Your task to perform on an android device: Go to Yahoo.com Image 0: 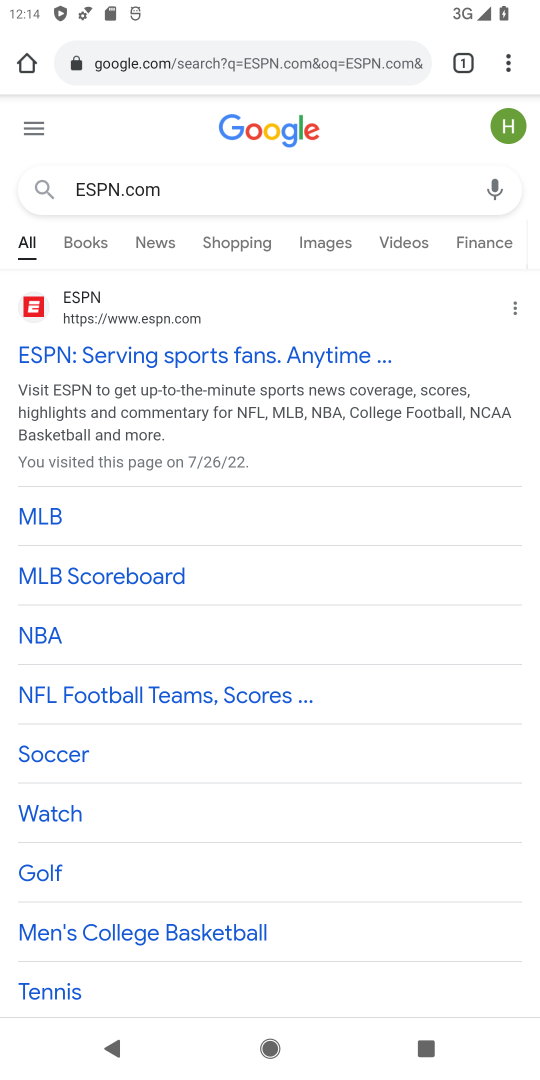
Step 0: drag from (240, 927) to (395, 259)
Your task to perform on an android device: Go to Yahoo.com Image 1: 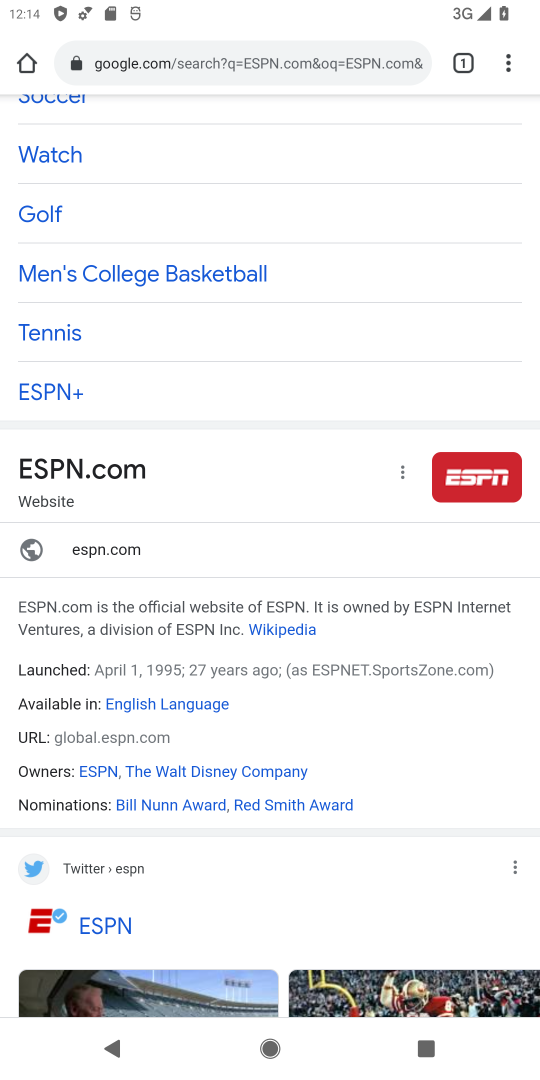
Step 1: press home button
Your task to perform on an android device: Go to Yahoo.com Image 2: 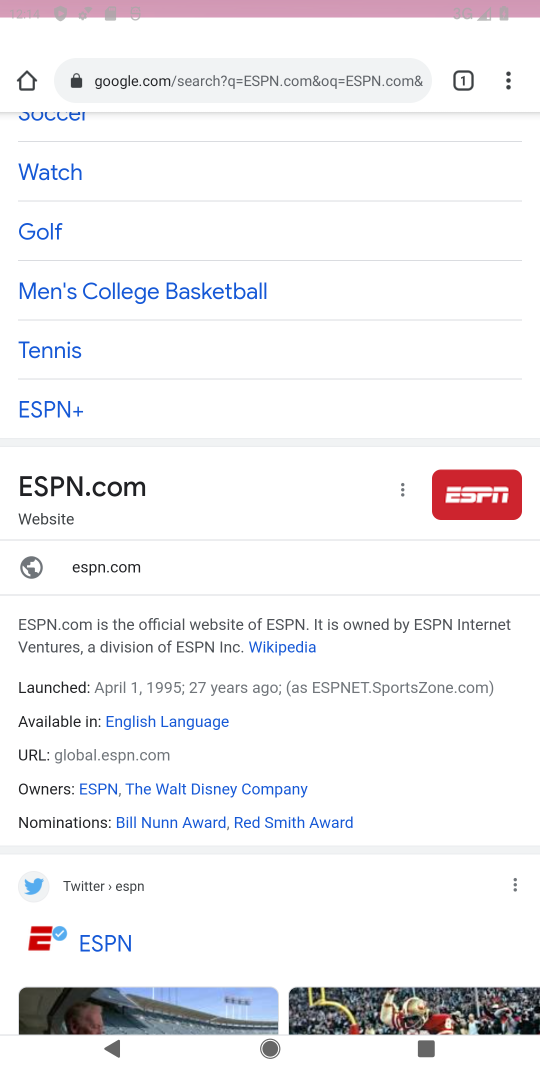
Step 2: drag from (212, 892) to (358, 222)
Your task to perform on an android device: Go to Yahoo.com Image 3: 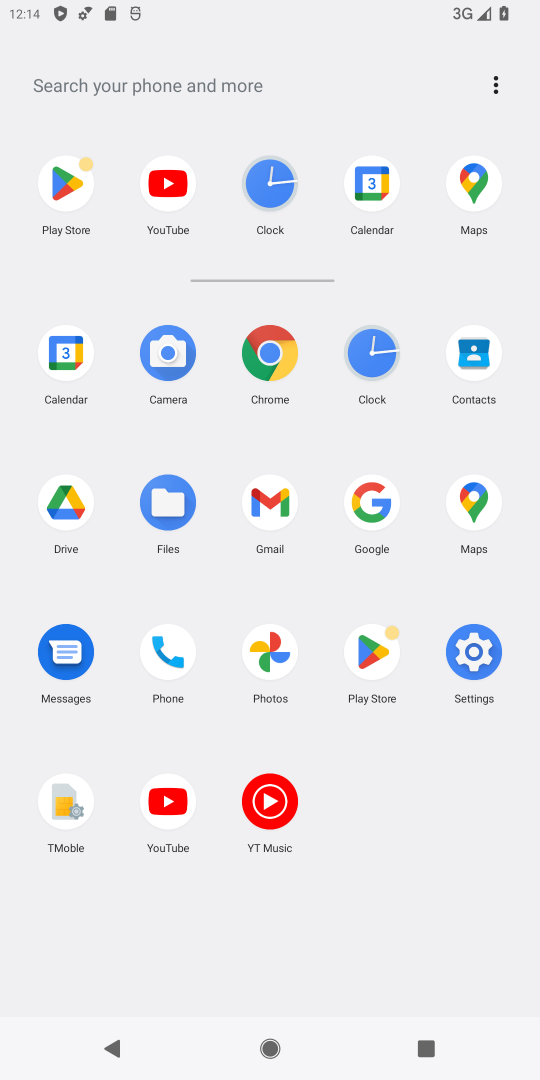
Step 3: click (142, 70)
Your task to perform on an android device: Go to Yahoo.com Image 4: 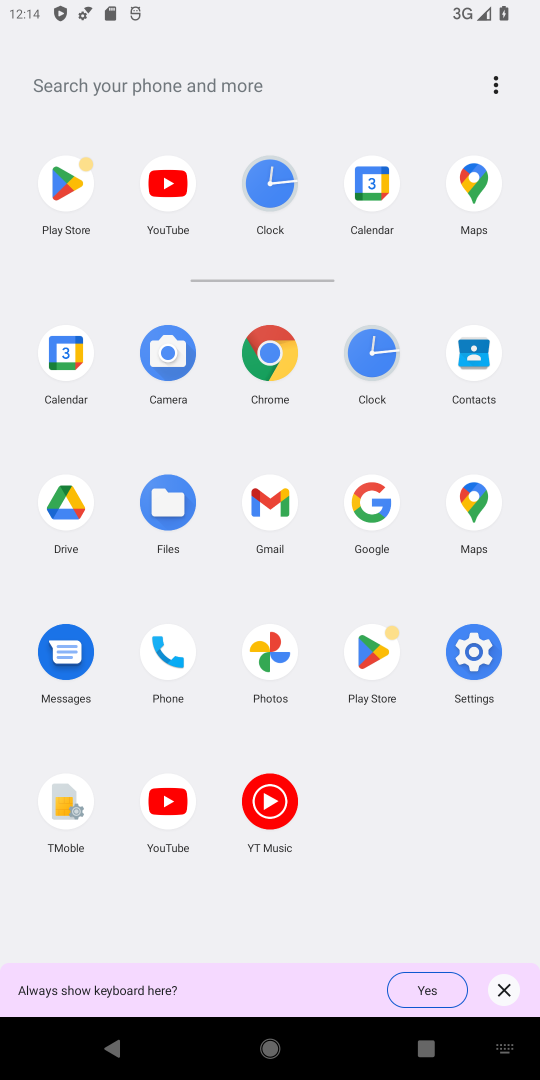
Step 4: type "Yahoo.com"
Your task to perform on an android device: Go to Yahoo.com Image 5: 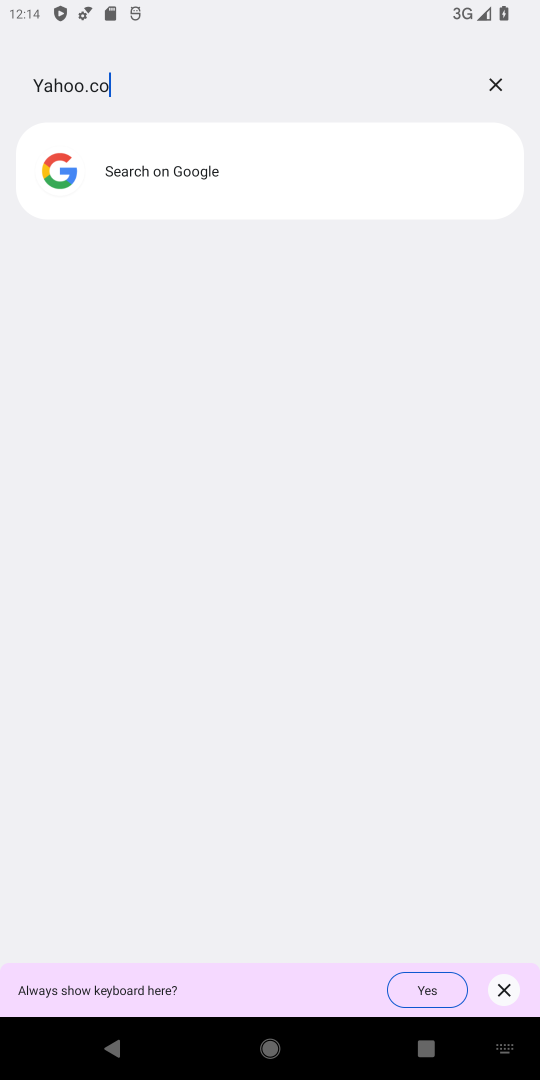
Step 5: type ""
Your task to perform on an android device: Go to Yahoo.com Image 6: 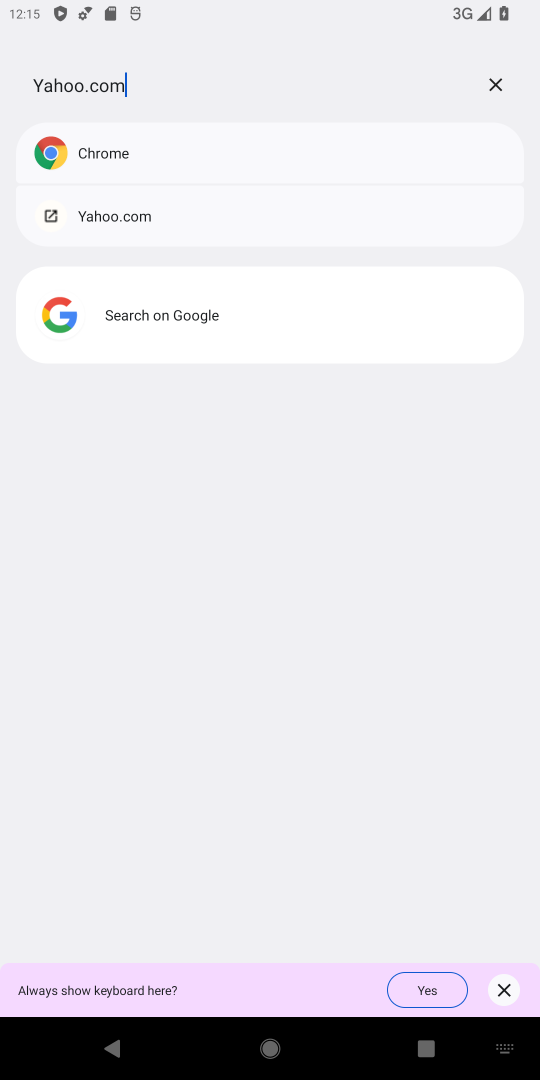
Step 6: click (130, 169)
Your task to perform on an android device: Go to Yahoo.com Image 7: 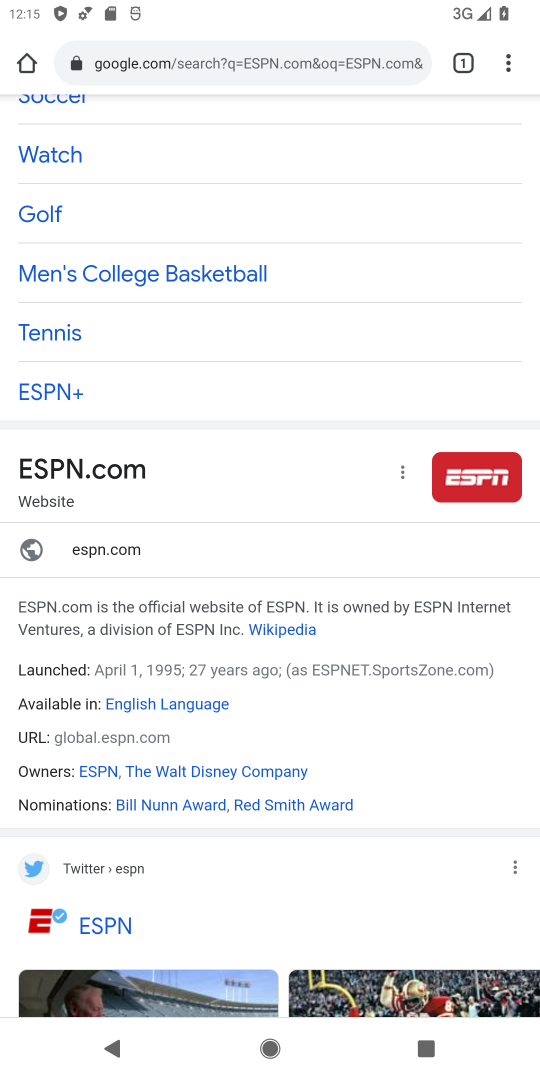
Step 7: drag from (236, 732) to (334, 450)
Your task to perform on an android device: Go to Yahoo.com Image 8: 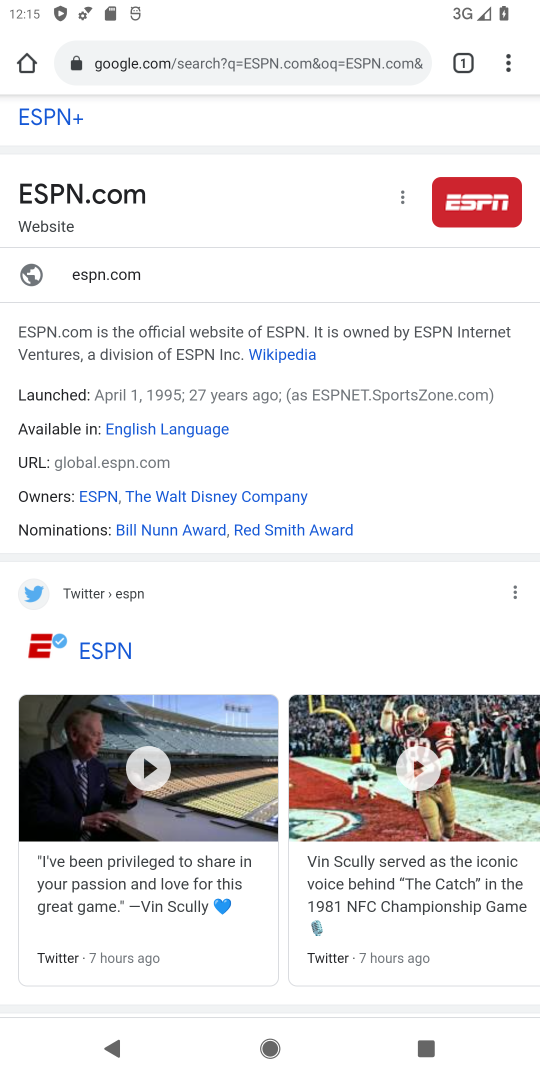
Step 8: drag from (179, 512) to (325, 1018)
Your task to perform on an android device: Go to Yahoo.com Image 9: 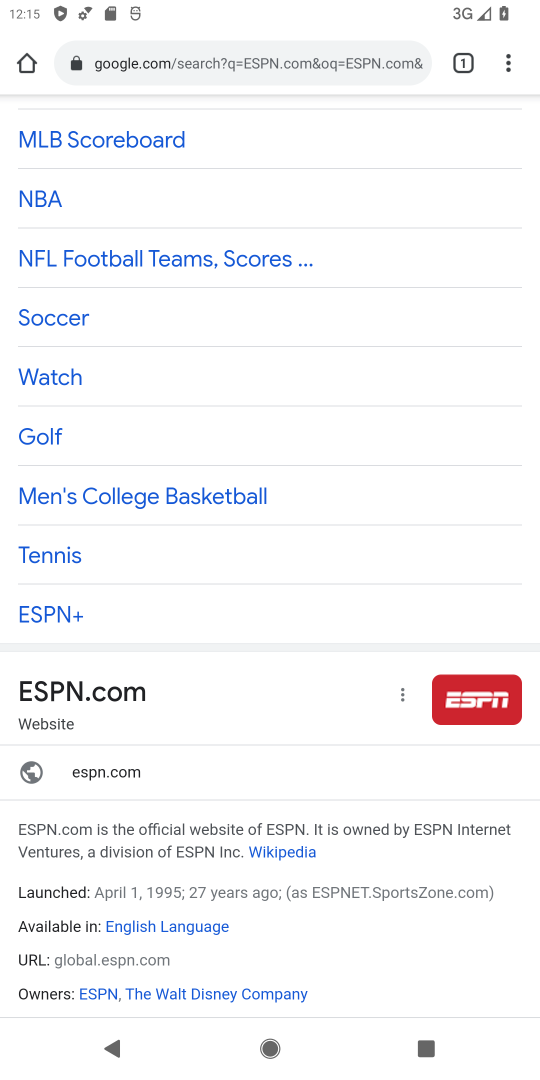
Step 9: drag from (164, 370) to (246, 1078)
Your task to perform on an android device: Go to Yahoo.com Image 10: 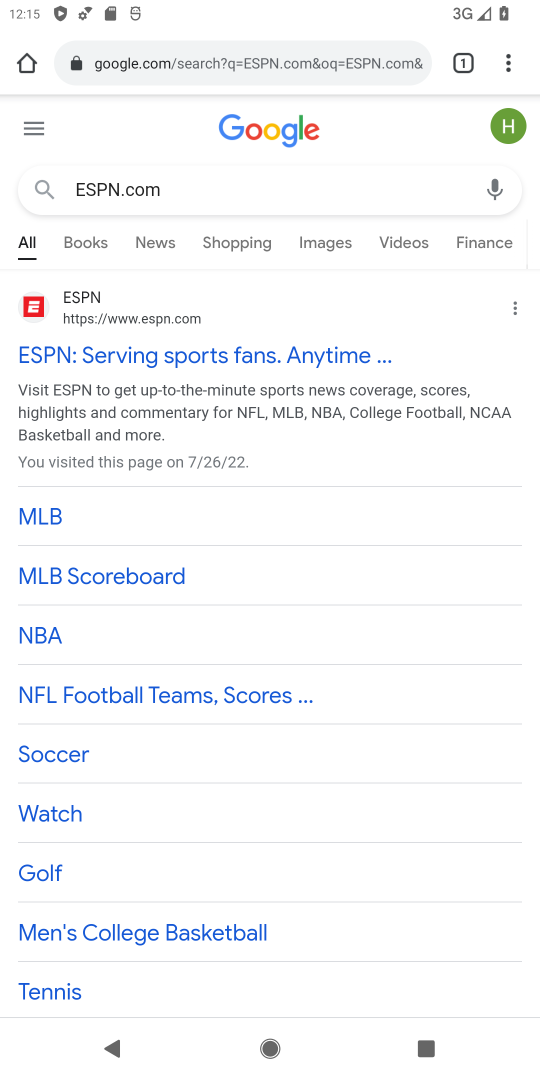
Step 10: click (253, 1060)
Your task to perform on an android device: Go to Yahoo.com Image 11: 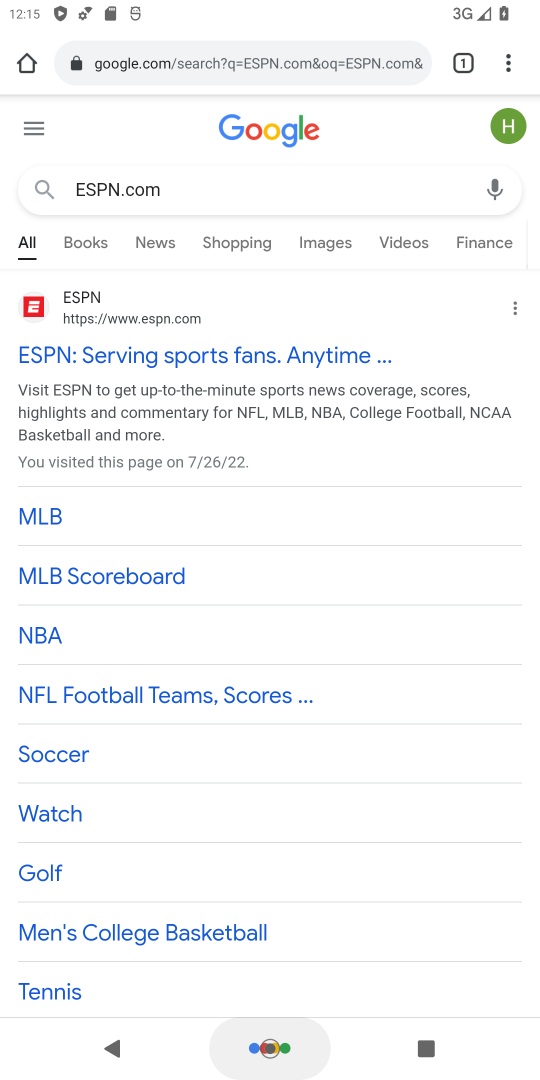
Step 11: drag from (269, 332) to (290, 1074)
Your task to perform on an android device: Go to Yahoo.com Image 12: 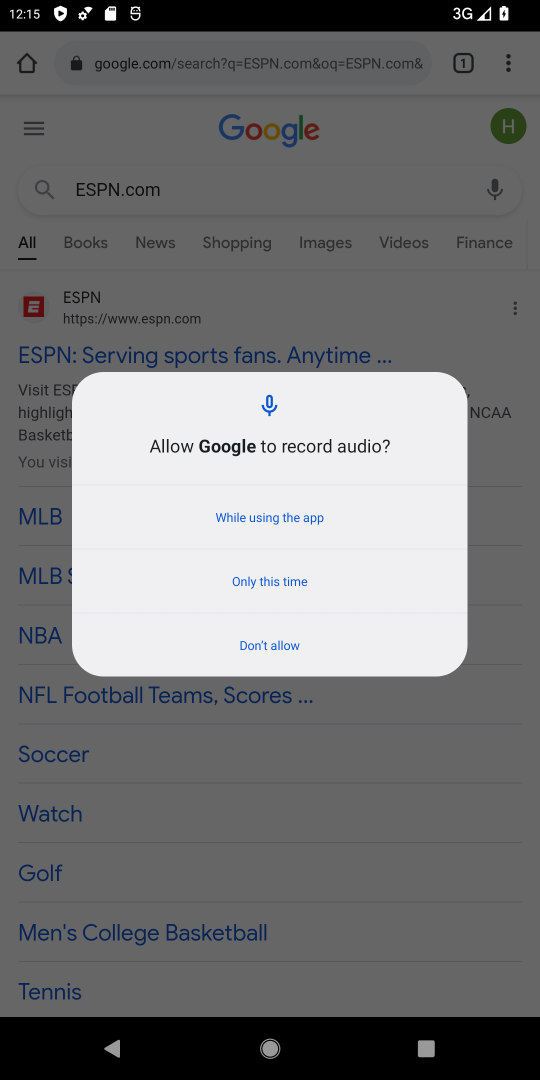
Step 12: click (485, 420)
Your task to perform on an android device: Go to Yahoo.com Image 13: 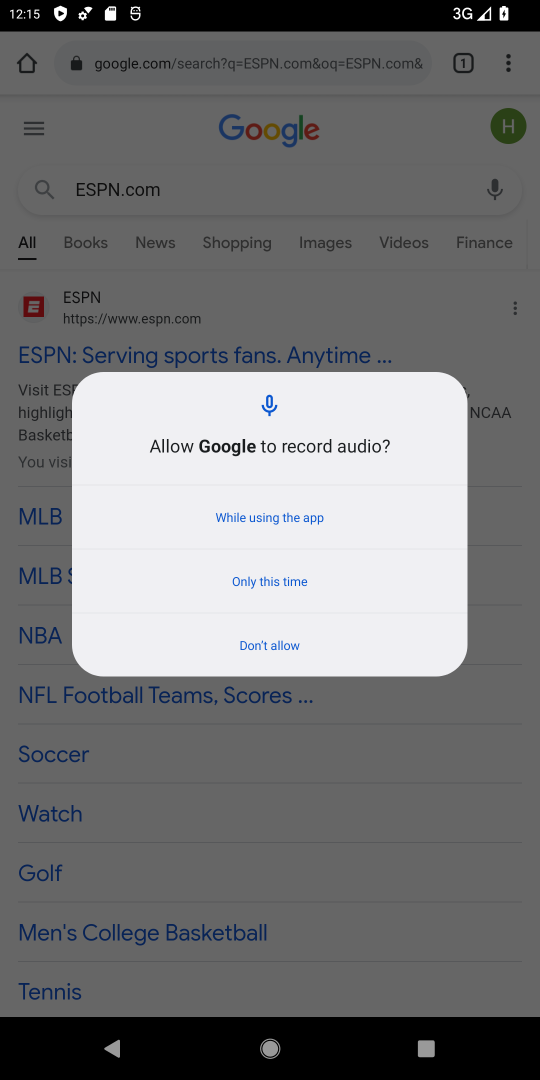
Step 13: click (33, 438)
Your task to perform on an android device: Go to Yahoo.com Image 14: 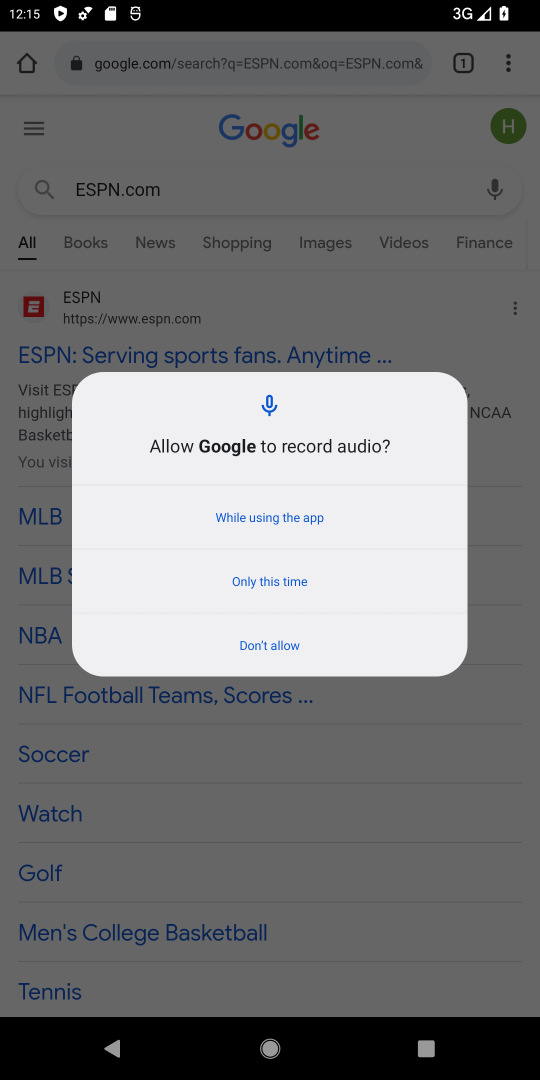
Step 14: click (40, 413)
Your task to perform on an android device: Go to Yahoo.com Image 15: 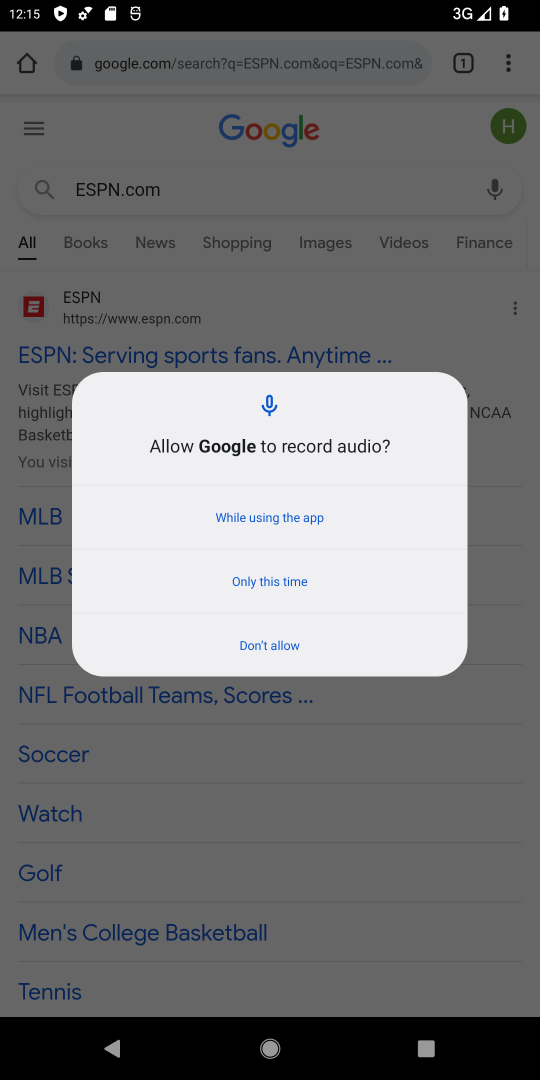
Step 15: click (501, 427)
Your task to perform on an android device: Go to Yahoo.com Image 16: 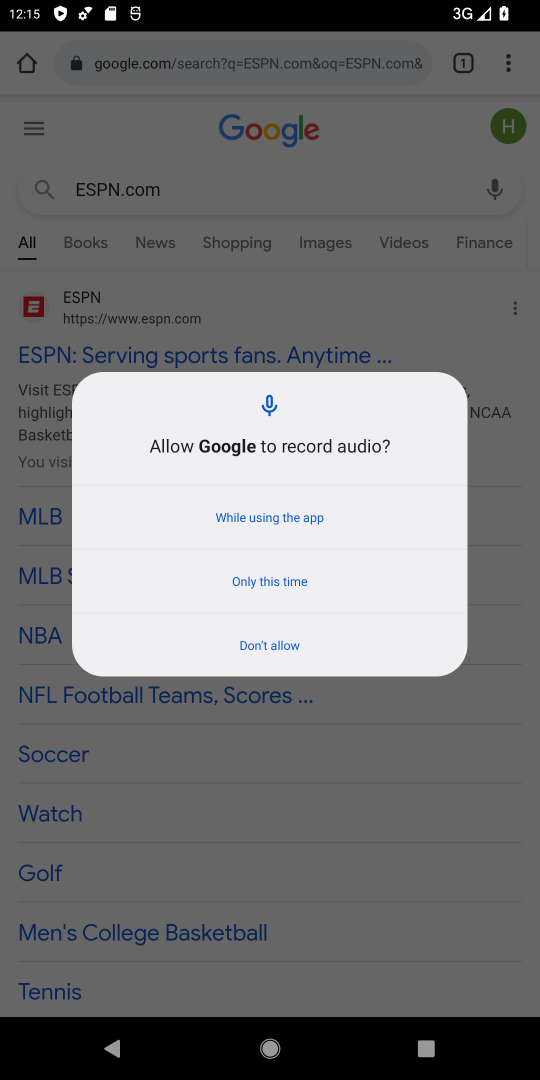
Step 16: press back button
Your task to perform on an android device: Go to Yahoo.com Image 17: 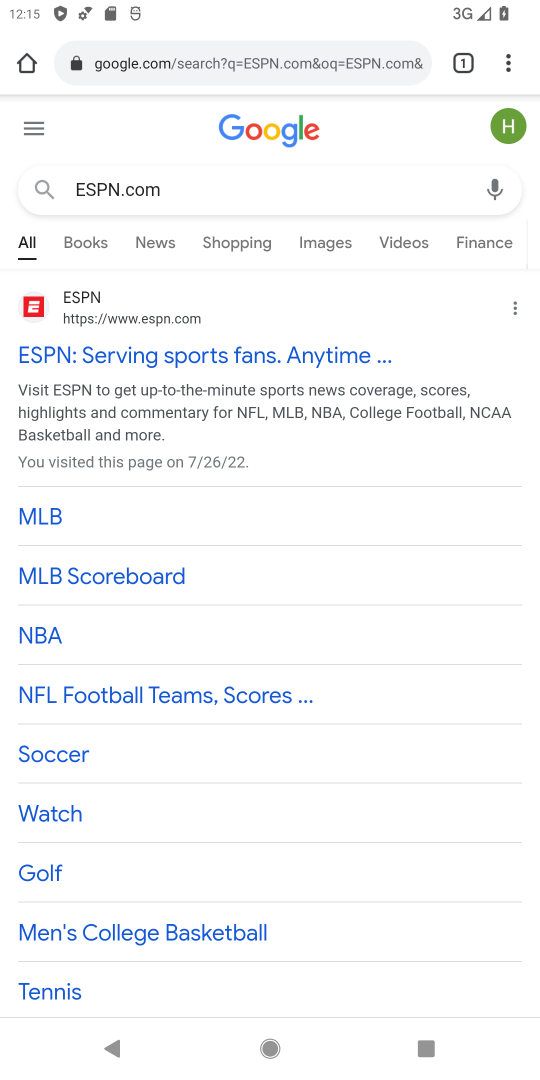
Step 17: click (233, 196)
Your task to perform on an android device: Go to Yahoo.com Image 18: 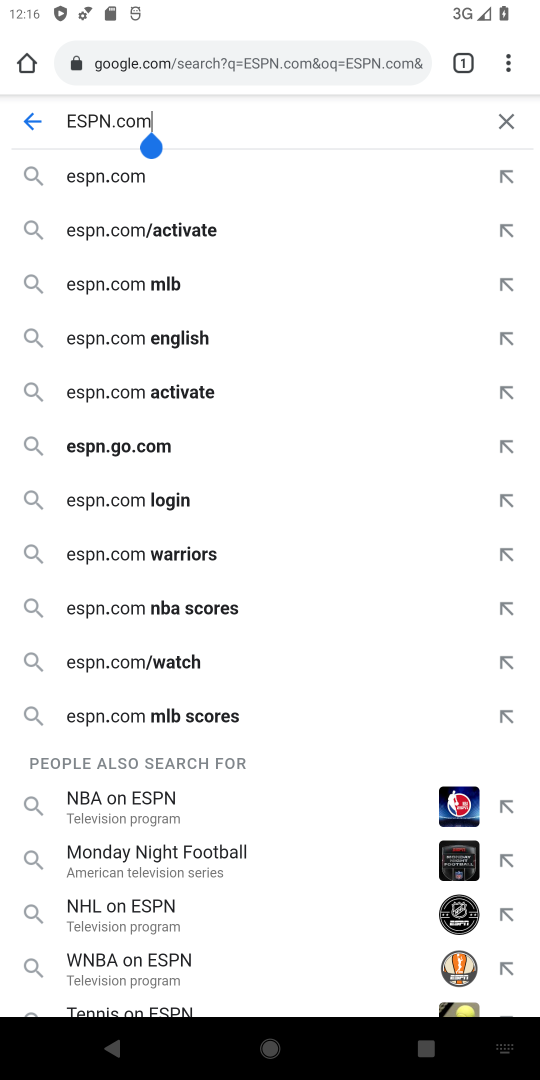
Step 18: click (509, 112)
Your task to perform on an android device: Go to Yahoo.com Image 19: 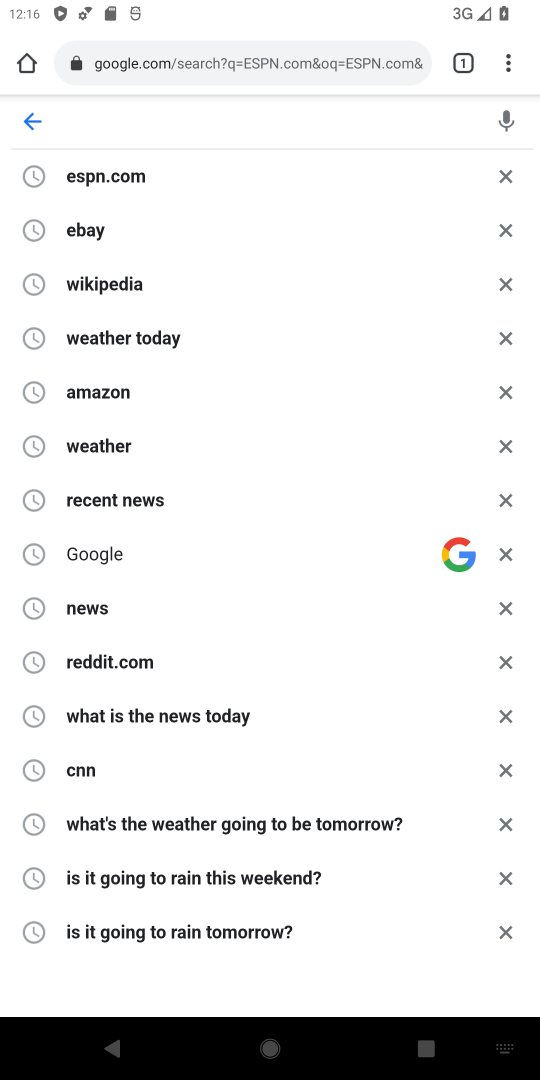
Step 19: click (96, 124)
Your task to perform on an android device: Go to Yahoo.com Image 20: 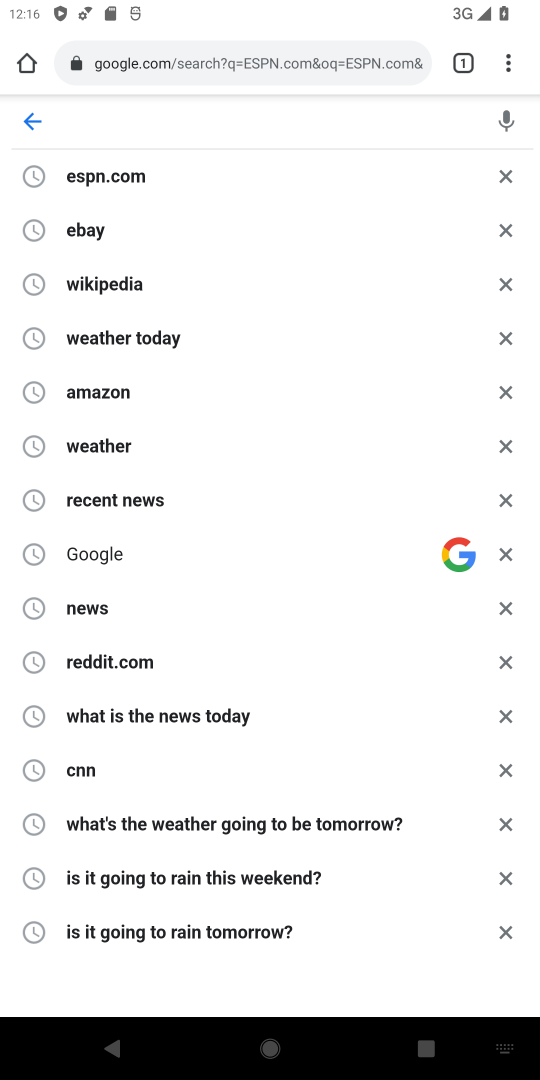
Step 20: type "Yahoo.com"
Your task to perform on an android device: Go to Yahoo.com Image 21: 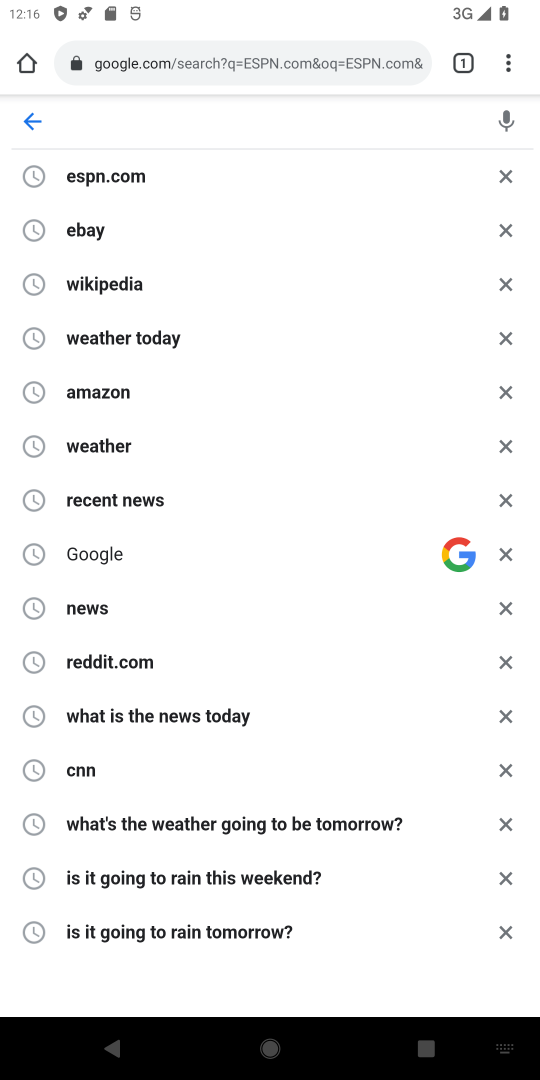
Step 21: type ""
Your task to perform on an android device: Go to Yahoo.com Image 22: 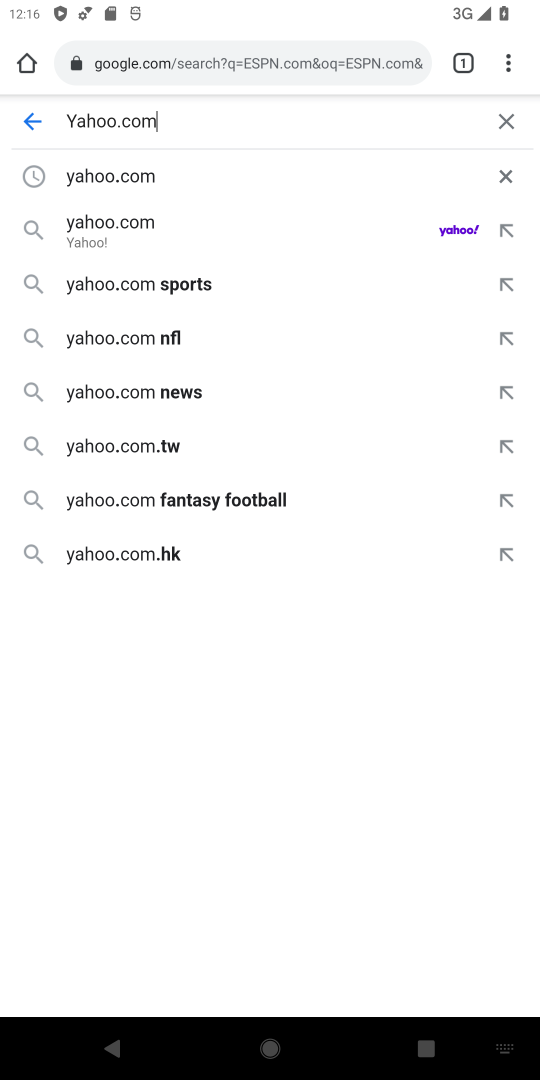
Step 22: click (119, 223)
Your task to perform on an android device: Go to Yahoo.com Image 23: 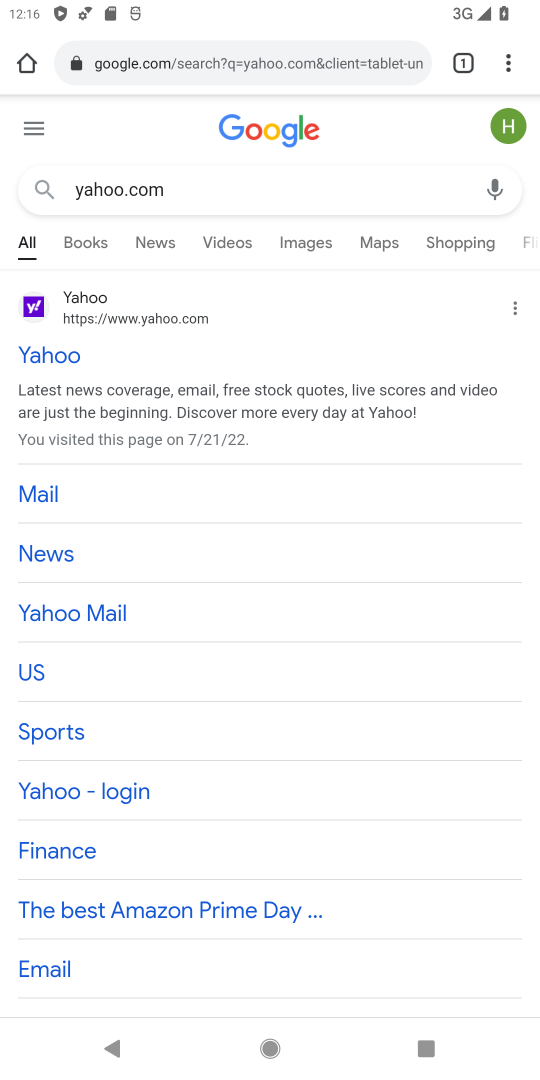
Step 23: click (43, 352)
Your task to perform on an android device: Go to Yahoo.com Image 24: 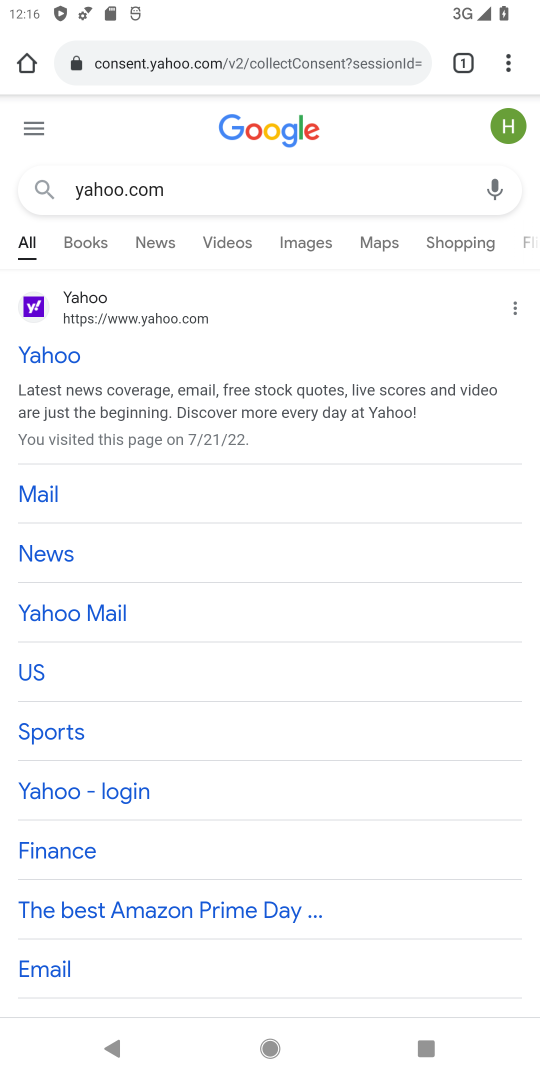
Step 24: task complete